Your task to perform on an android device: Check the news Image 0: 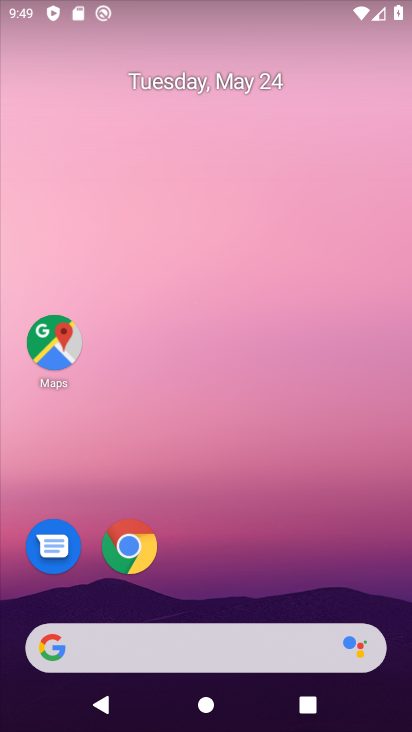
Step 0: click (200, 628)
Your task to perform on an android device: Check the news Image 1: 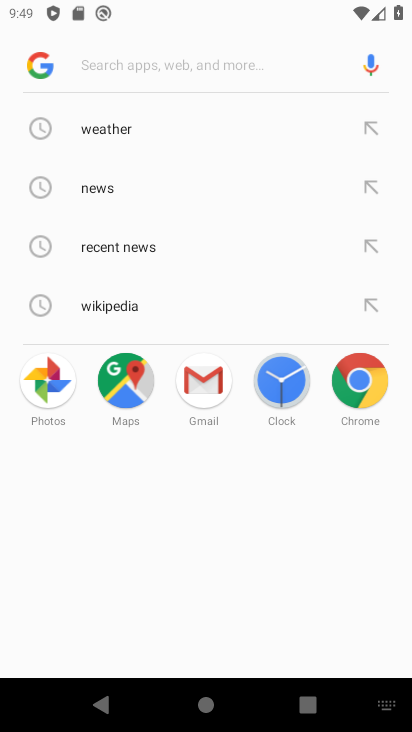
Step 1: click (104, 189)
Your task to perform on an android device: Check the news Image 2: 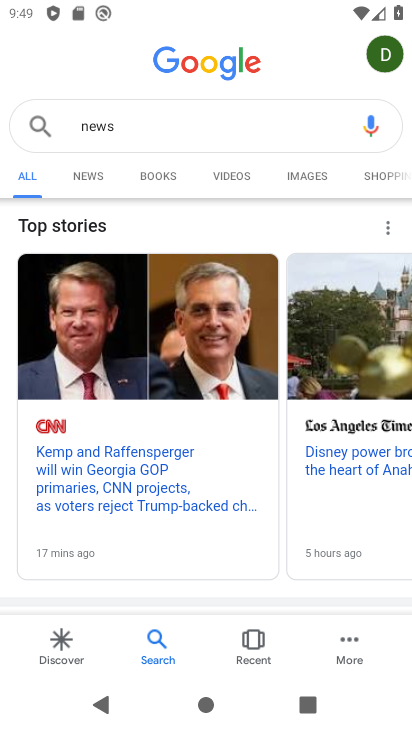
Step 2: task complete